Your task to perform on an android device: stop showing notifications on the lock screen Image 0: 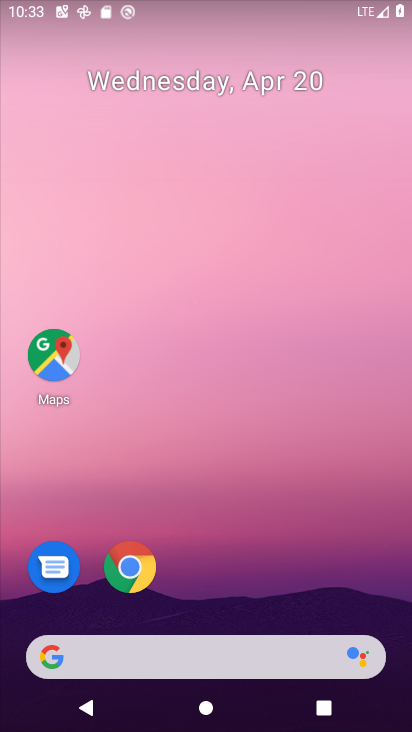
Step 0: drag from (329, 577) to (345, 24)
Your task to perform on an android device: stop showing notifications on the lock screen Image 1: 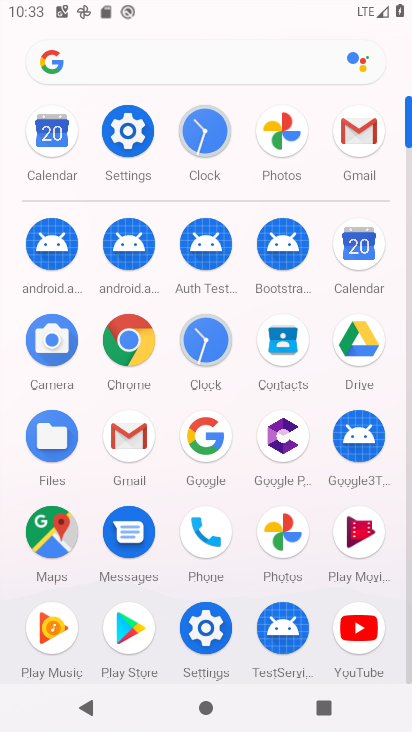
Step 1: click (133, 137)
Your task to perform on an android device: stop showing notifications on the lock screen Image 2: 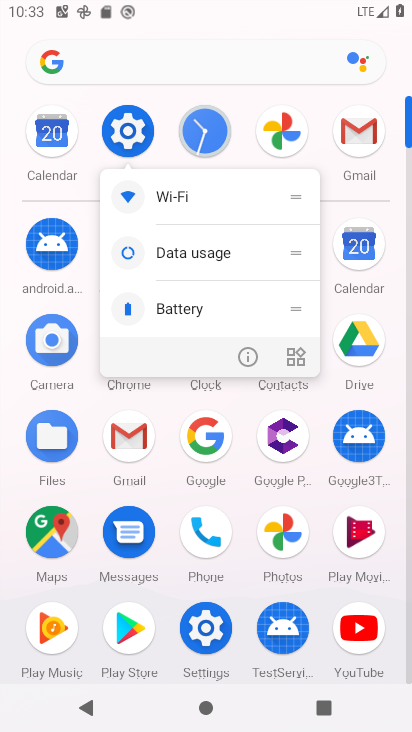
Step 2: click (133, 137)
Your task to perform on an android device: stop showing notifications on the lock screen Image 3: 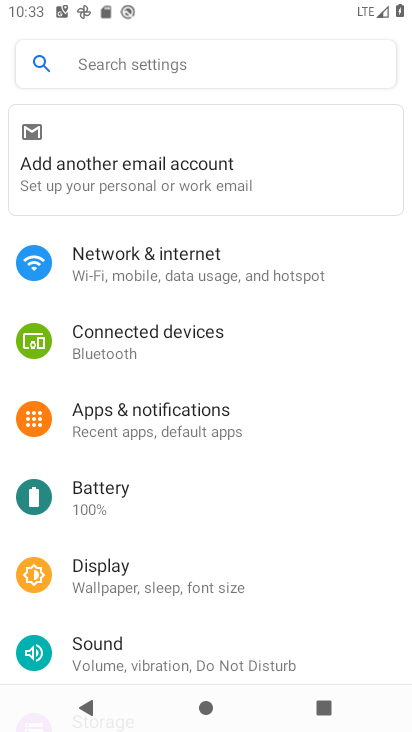
Step 3: drag from (348, 551) to (334, 309)
Your task to perform on an android device: stop showing notifications on the lock screen Image 4: 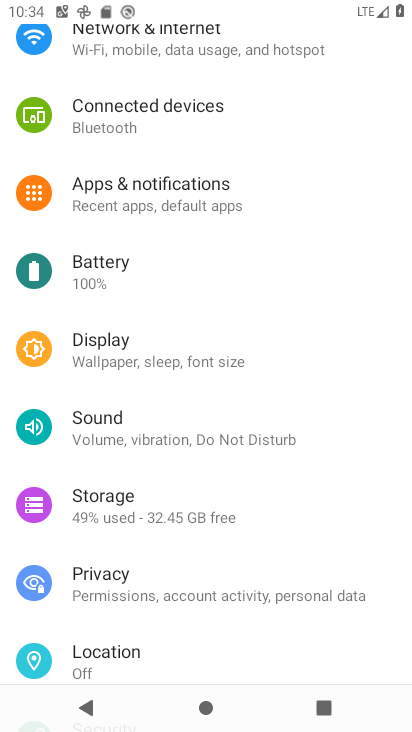
Step 4: drag from (365, 512) to (360, 322)
Your task to perform on an android device: stop showing notifications on the lock screen Image 5: 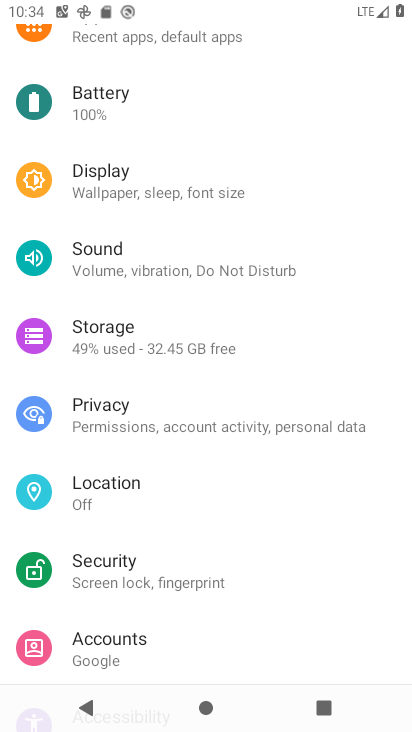
Step 5: drag from (362, 556) to (358, 329)
Your task to perform on an android device: stop showing notifications on the lock screen Image 6: 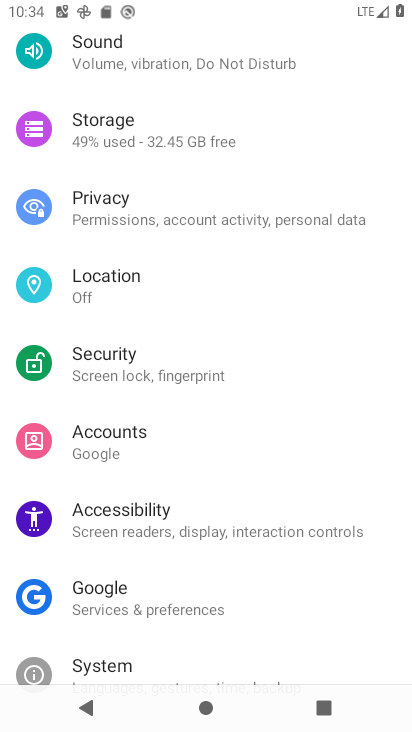
Step 6: drag from (367, 587) to (367, 399)
Your task to perform on an android device: stop showing notifications on the lock screen Image 7: 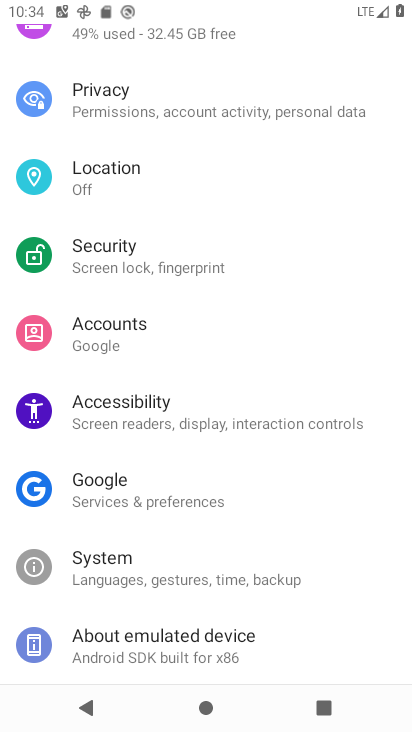
Step 7: drag from (359, 562) to (361, 301)
Your task to perform on an android device: stop showing notifications on the lock screen Image 8: 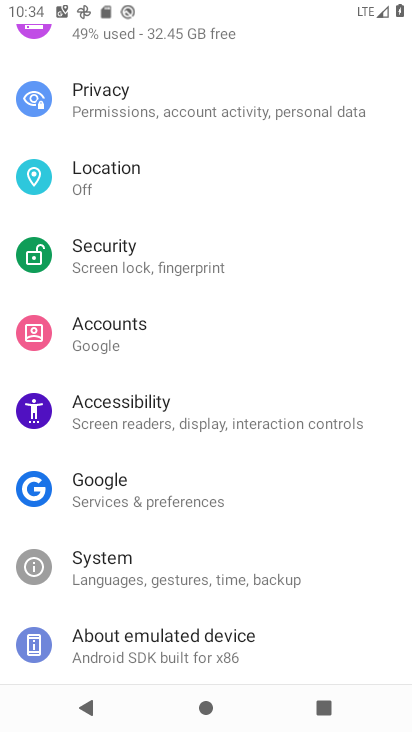
Step 8: drag from (355, 299) to (318, 521)
Your task to perform on an android device: stop showing notifications on the lock screen Image 9: 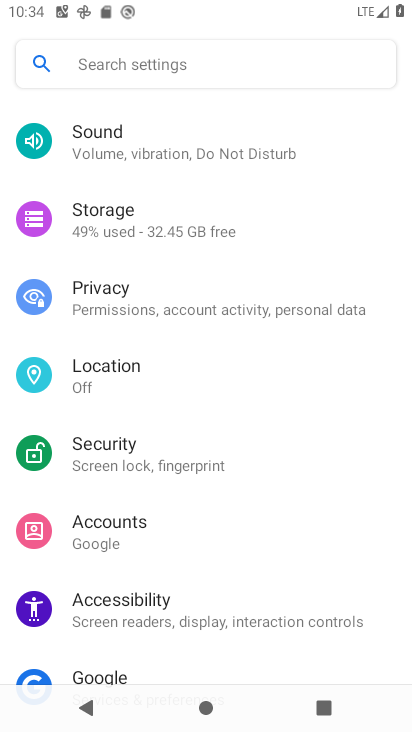
Step 9: drag from (341, 378) to (332, 526)
Your task to perform on an android device: stop showing notifications on the lock screen Image 10: 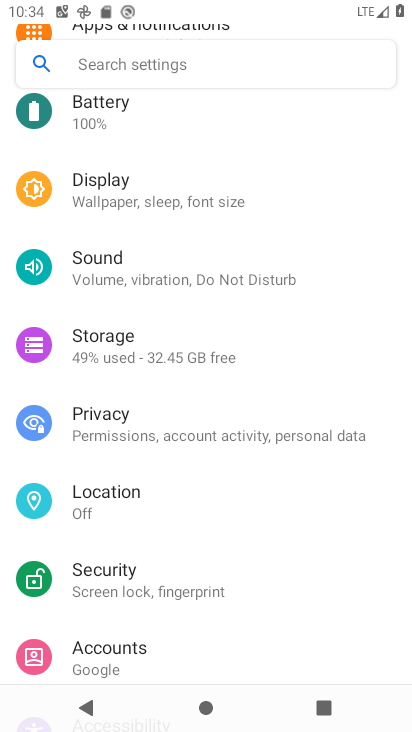
Step 10: drag from (352, 254) to (362, 460)
Your task to perform on an android device: stop showing notifications on the lock screen Image 11: 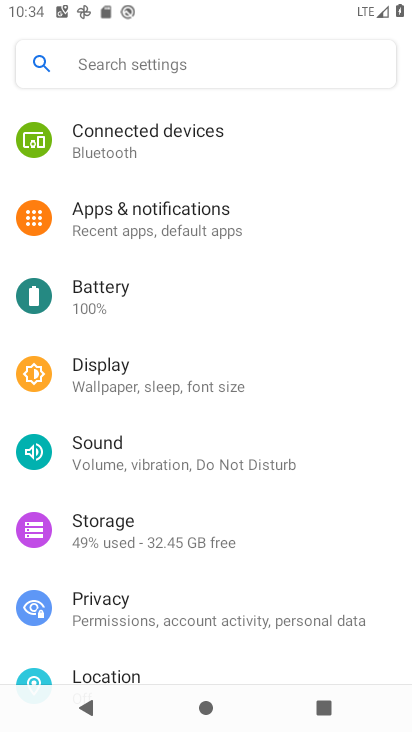
Step 11: click (212, 205)
Your task to perform on an android device: stop showing notifications on the lock screen Image 12: 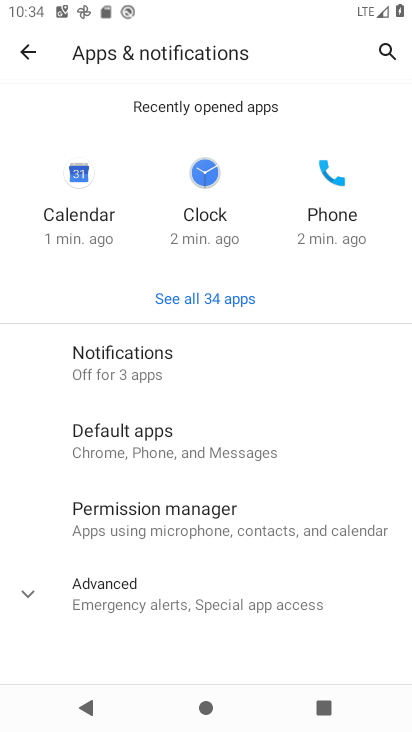
Step 12: click (129, 358)
Your task to perform on an android device: stop showing notifications on the lock screen Image 13: 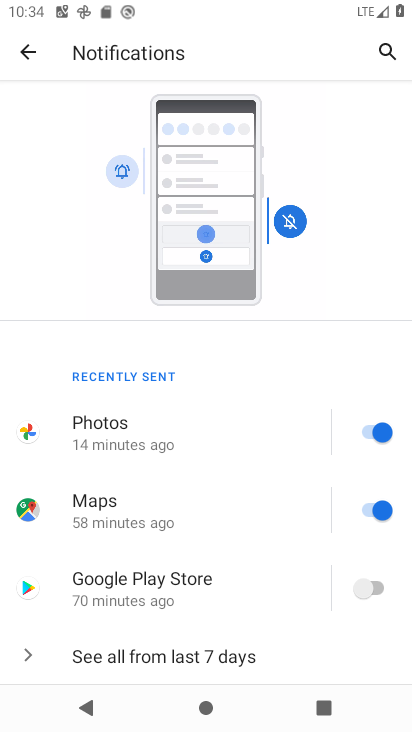
Step 13: drag from (271, 506) to (281, 328)
Your task to perform on an android device: stop showing notifications on the lock screen Image 14: 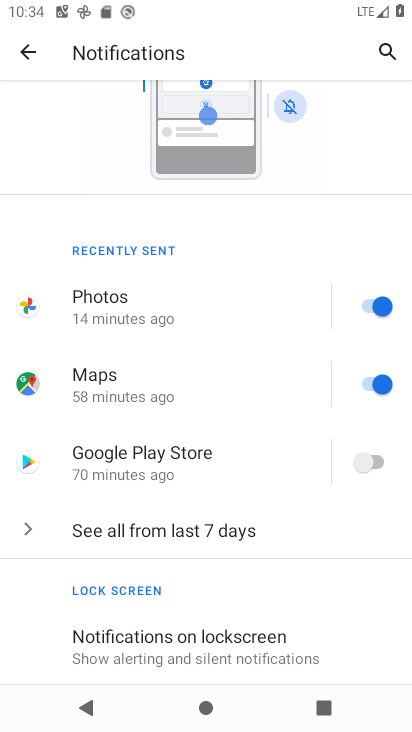
Step 14: drag from (290, 545) to (292, 365)
Your task to perform on an android device: stop showing notifications on the lock screen Image 15: 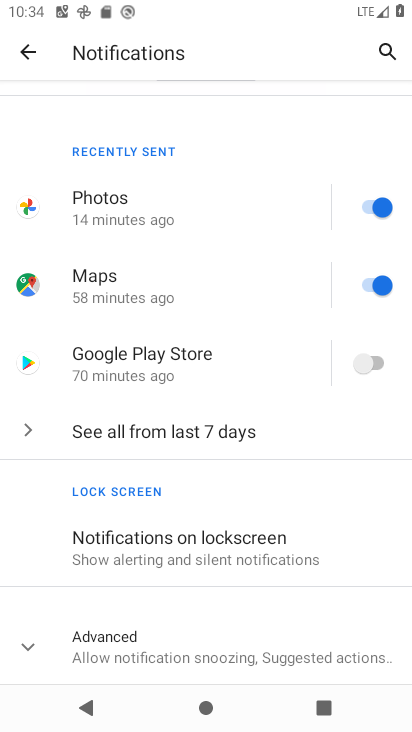
Step 15: drag from (297, 551) to (300, 373)
Your task to perform on an android device: stop showing notifications on the lock screen Image 16: 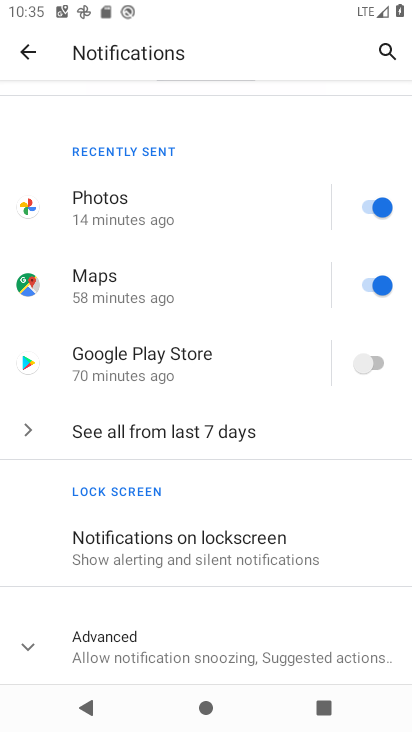
Step 16: click (279, 555)
Your task to perform on an android device: stop showing notifications on the lock screen Image 17: 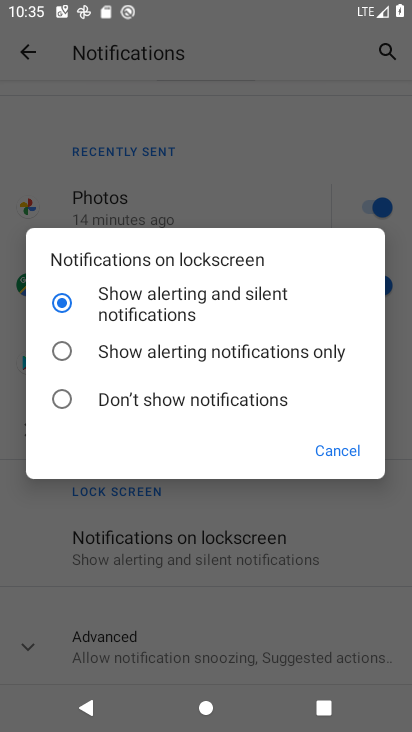
Step 17: click (112, 399)
Your task to perform on an android device: stop showing notifications on the lock screen Image 18: 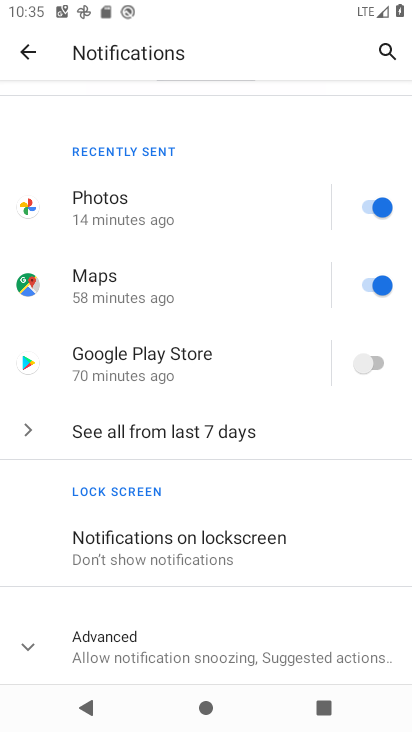
Step 18: task complete